Your task to perform on an android device: check out phone information Image 0: 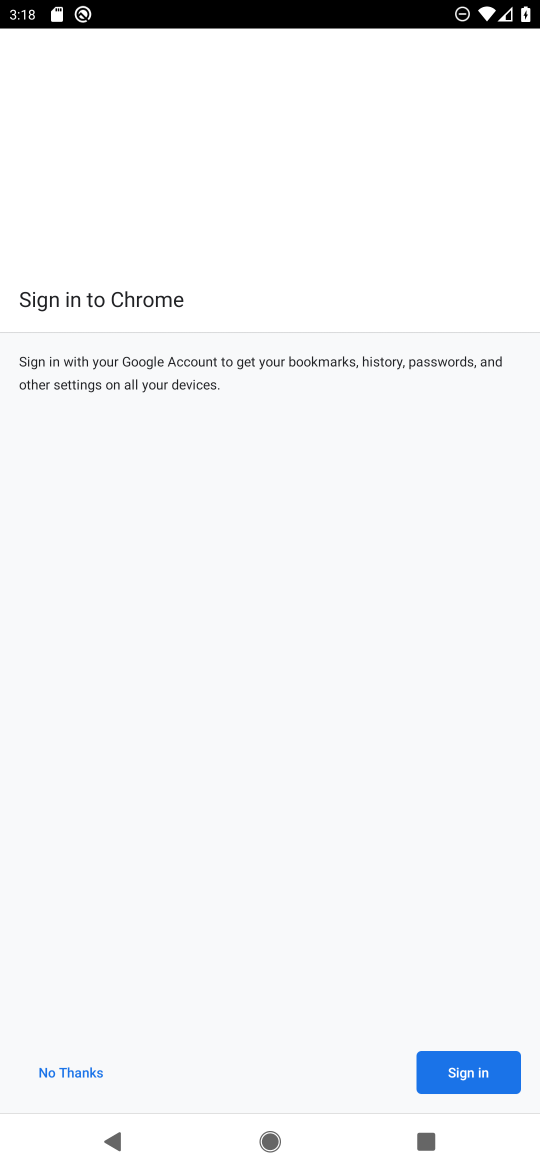
Step 0: press home button
Your task to perform on an android device: check out phone information Image 1: 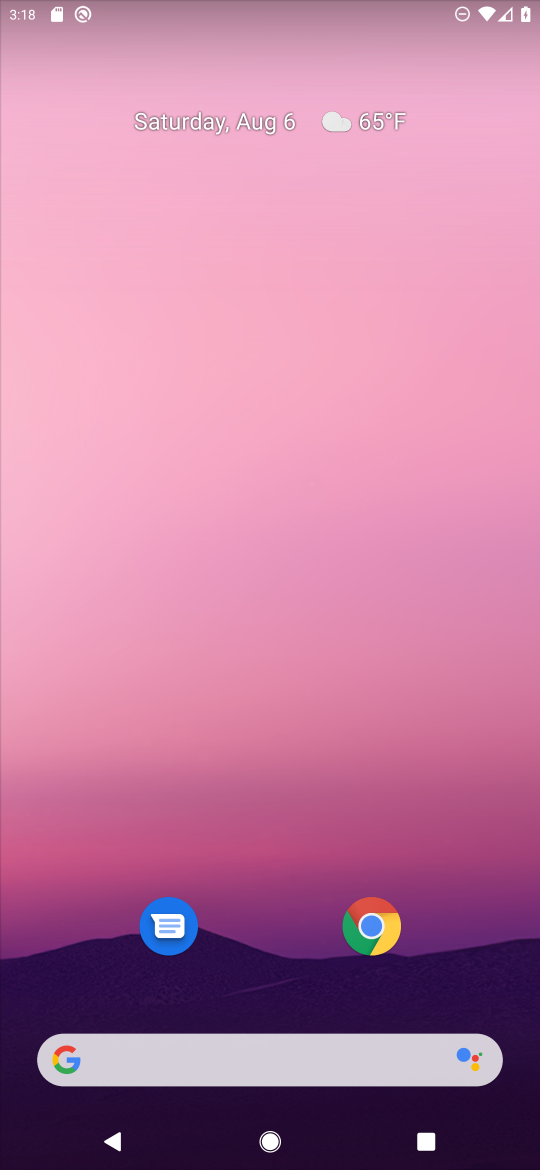
Step 1: drag from (289, 969) to (254, 352)
Your task to perform on an android device: check out phone information Image 2: 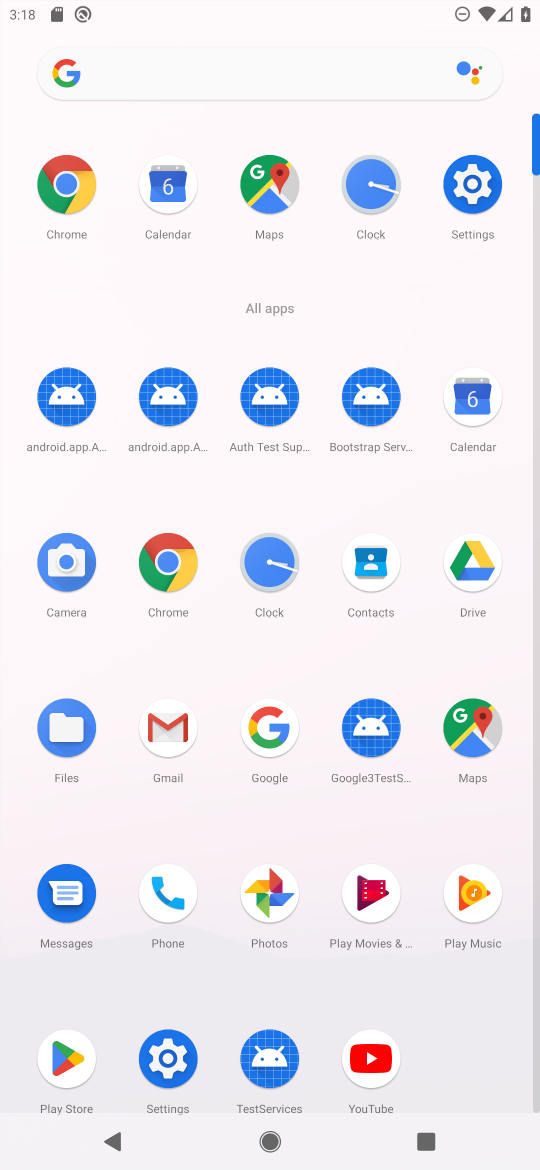
Step 2: click (475, 200)
Your task to perform on an android device: check out phone information Image 3: 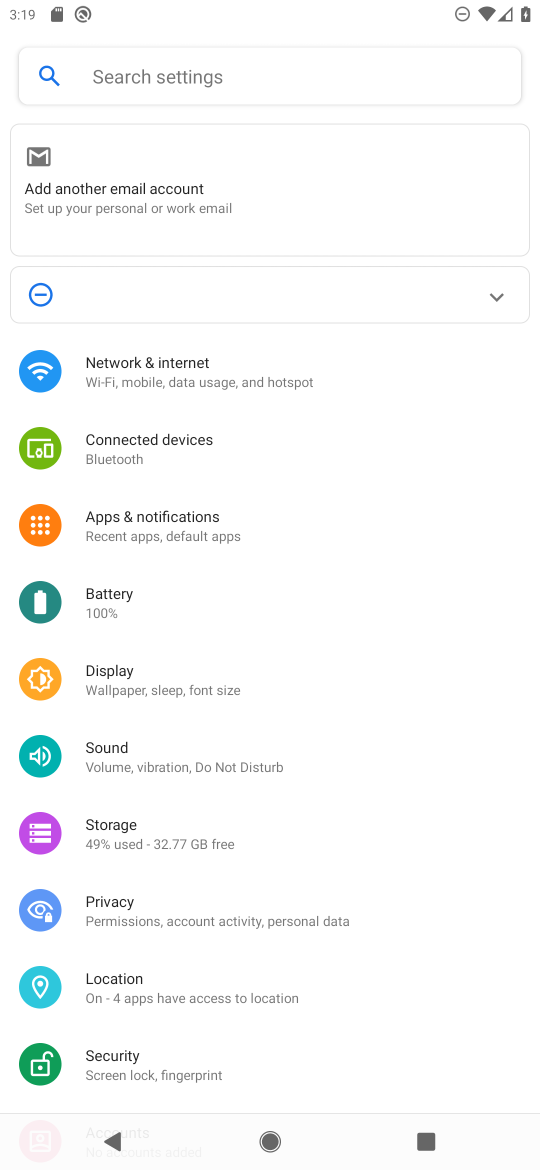
Step 3: task complete